Your task to perform on an android device: Open Google Chrome and click the shortcut for Amazon.com Image 0: 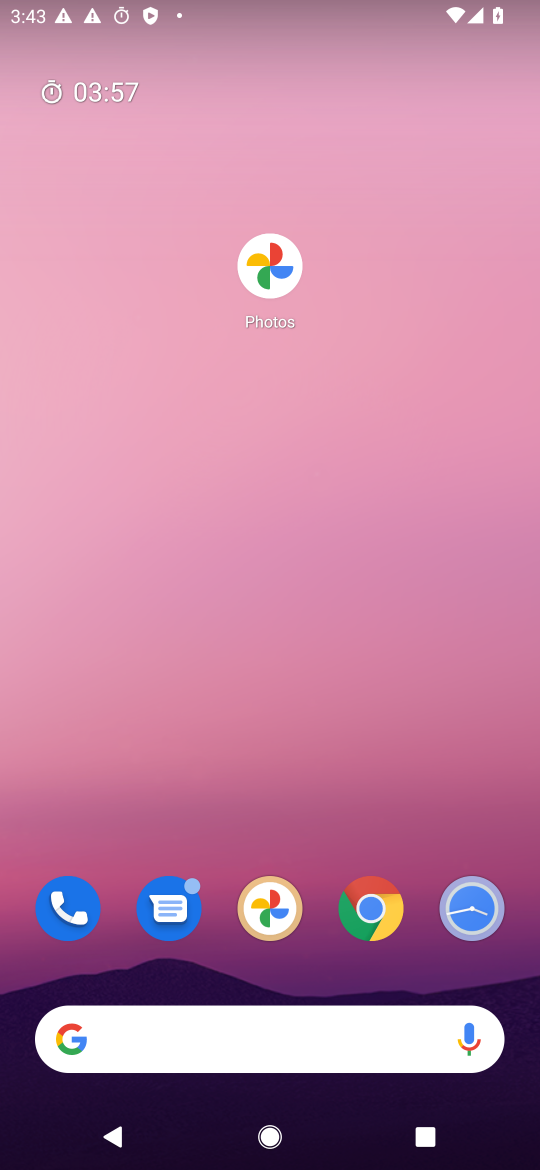
Step 0: click (382, 930)
Your task to perform on an android device: Open Google Chrome and click the shortcut for Amazon.com Image 1: 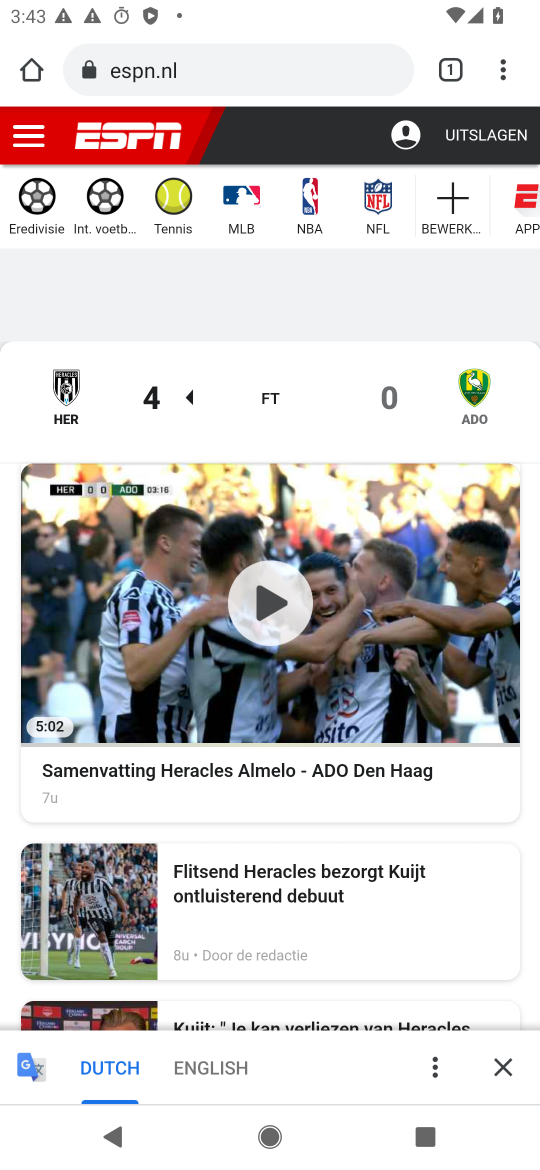
Step 1: click (494, 63)
Your task to perform on an android device: Open Google Chrome and click the shortcut for Amazon.com Image 2: 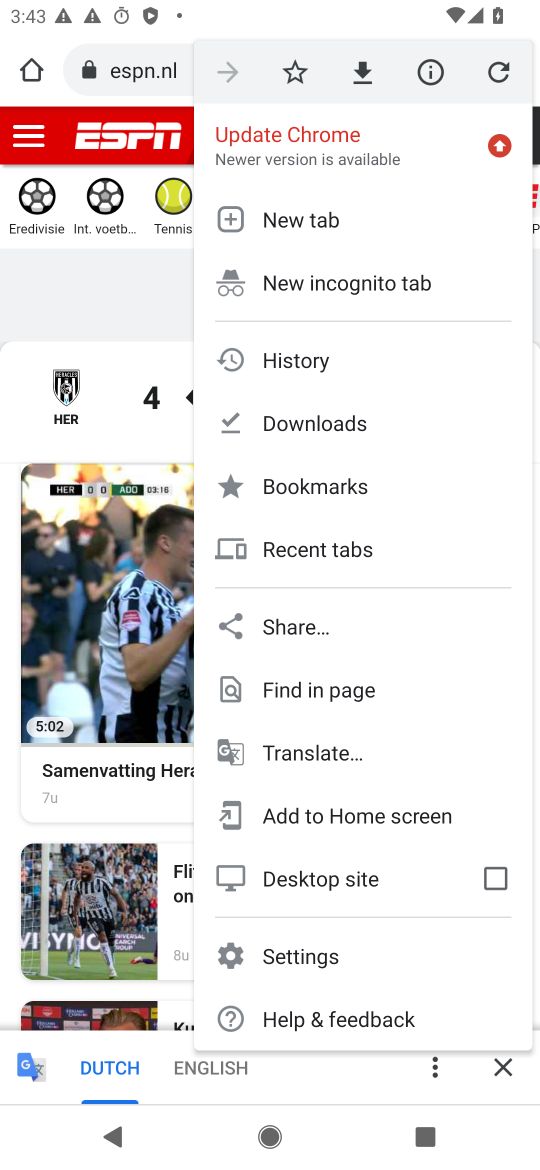
Step 2: click (317, 219)
Your task to perform on an android device: Open Google Chrome and click the shortcut for Amazon.com Image 3: 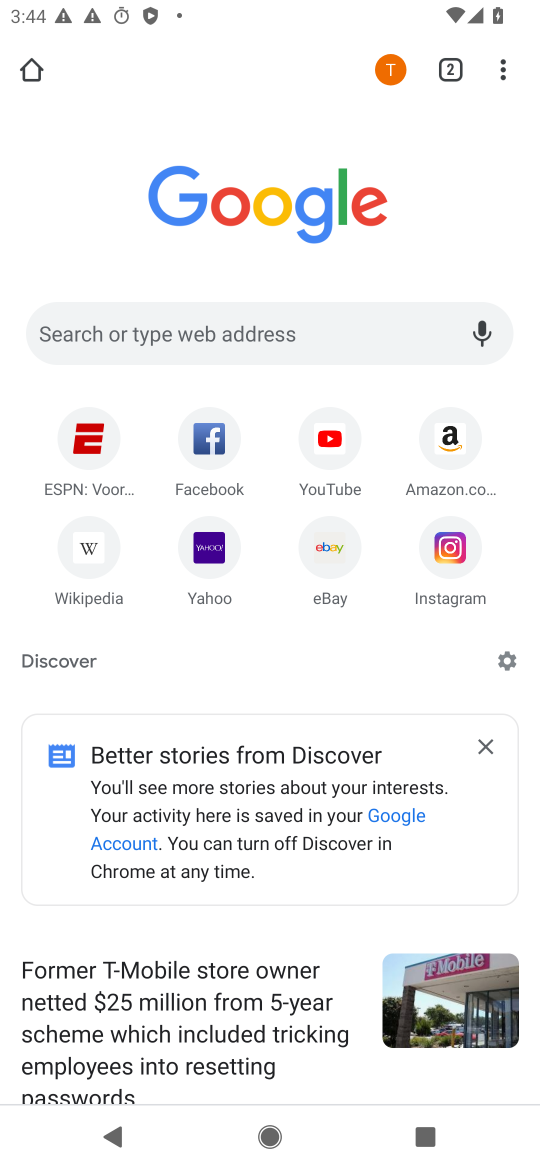
Step 3: click (426, 439)
Your task to perform on an android device: Open Google Chrome and click the shortcut for Amazon.com Image 4: 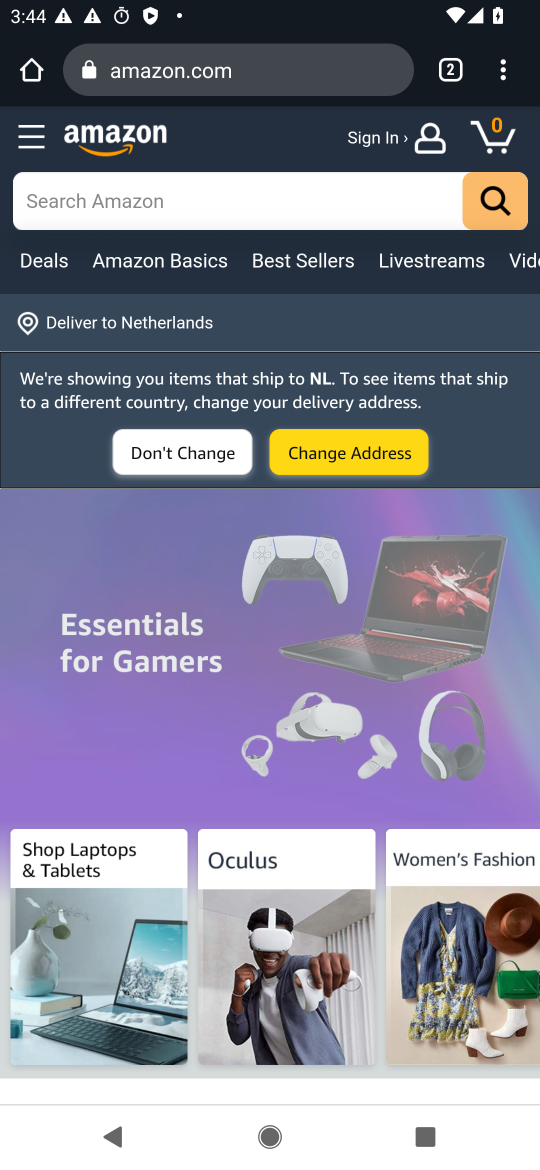
Step 4: task complete